Your task to perform on an android device: change the clock style Image 0: 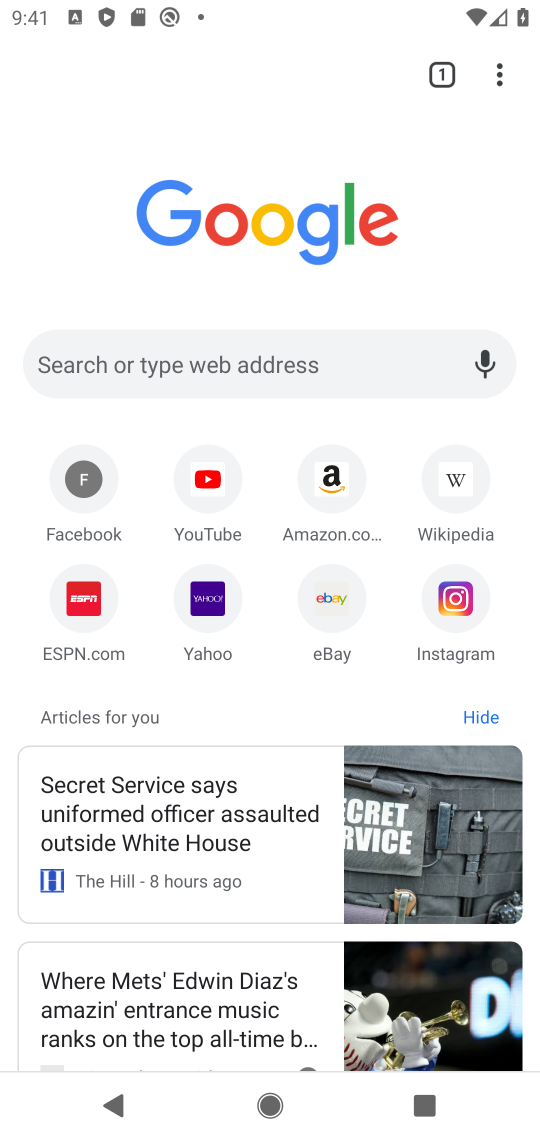
Step 0: press home button
Your task to perform on an android device: change the clock style Image 1: 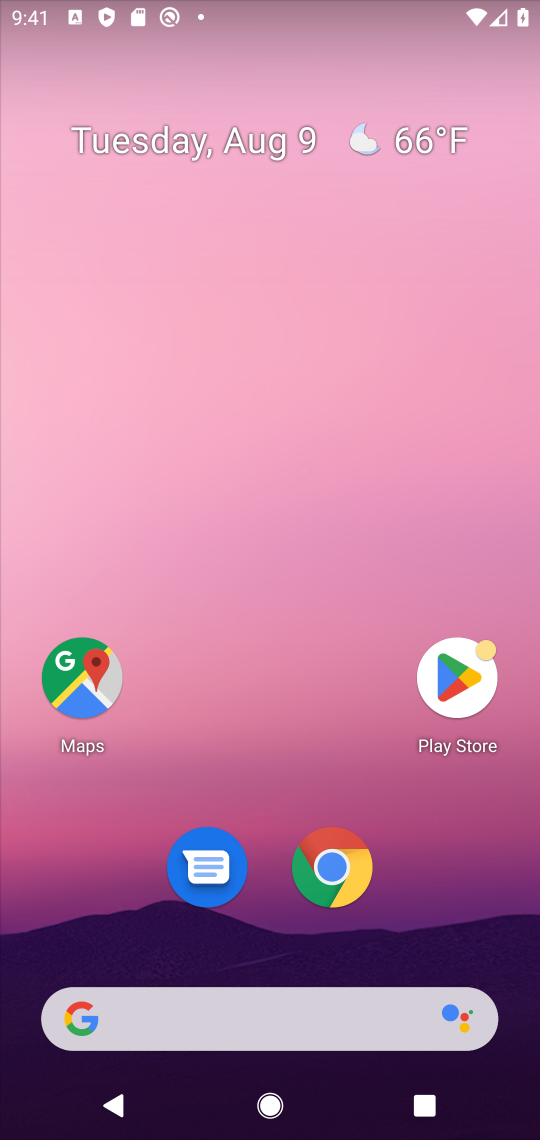
Step 1: drag from (436, 882) to (399, 161)
Your task to perform on an android device: change the clock style Image 2: 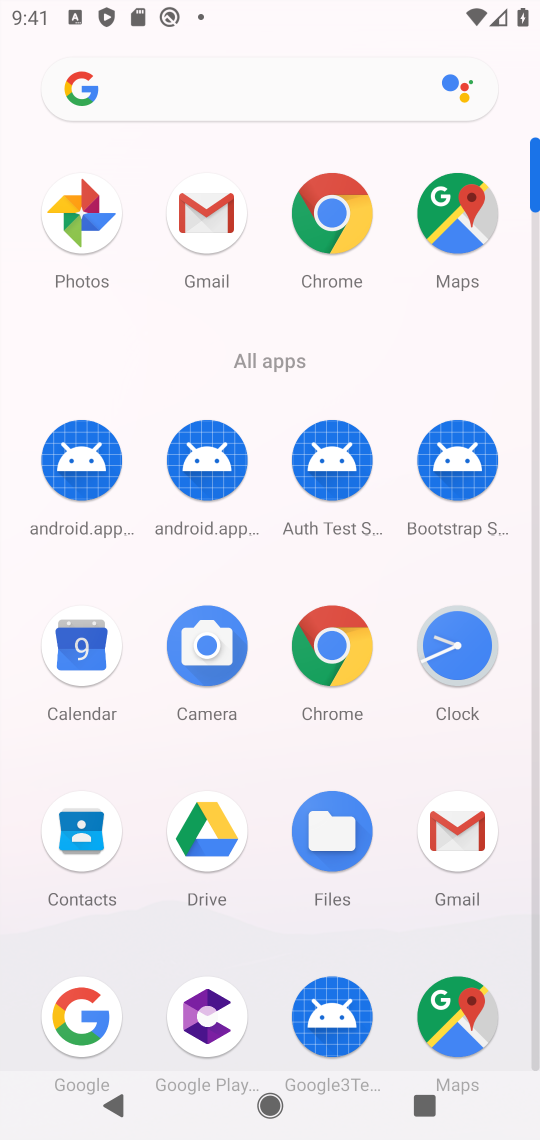
Step 2: click (459, 632)
Your task to perform on an android device: change the clock style Image 3: 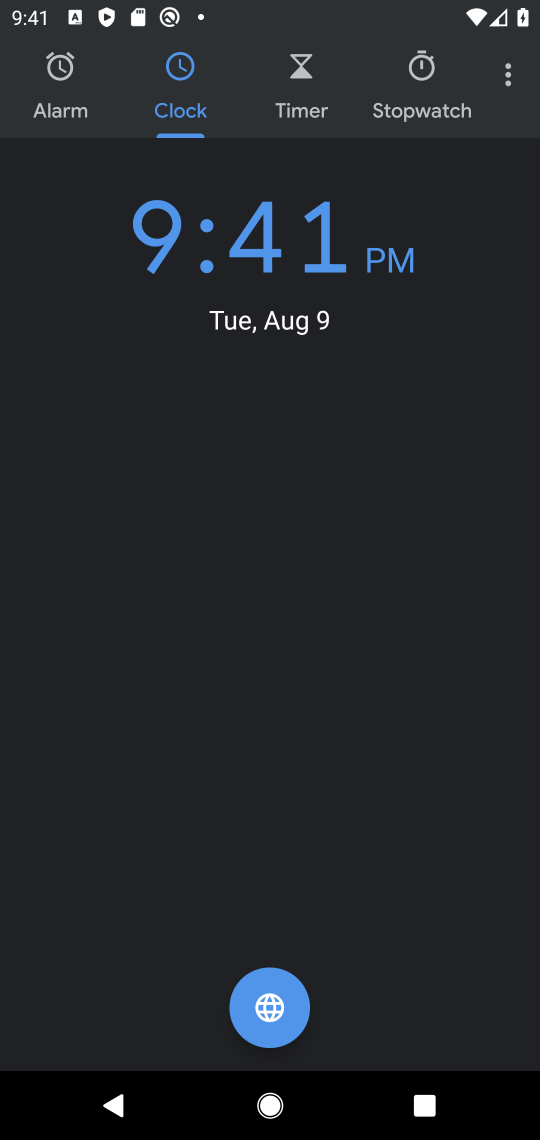
Step 3: click (500, 85)
Your task to perform on an android device: change the clock style Image 4: 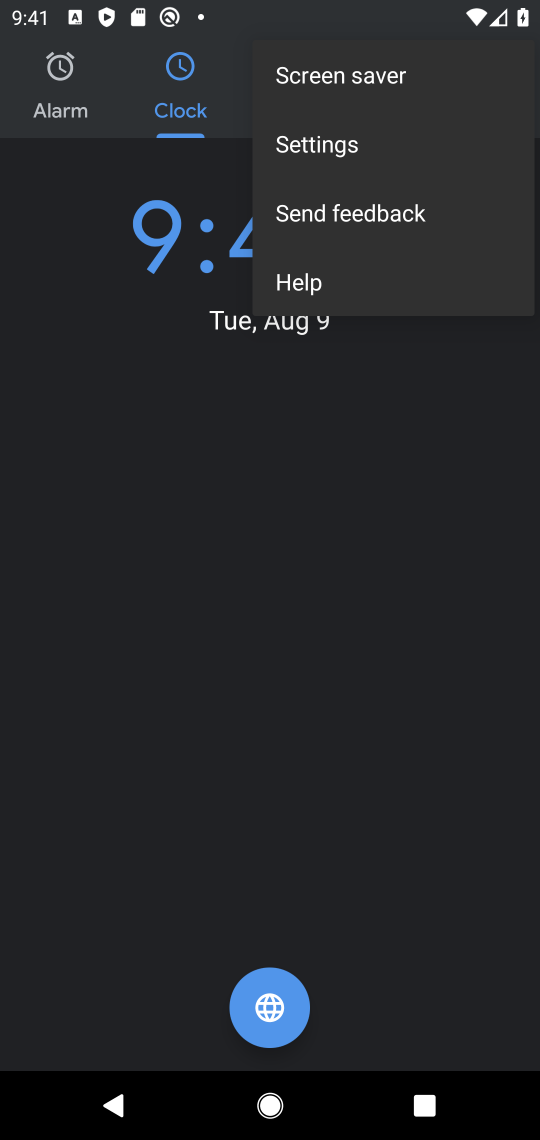
Step 4: click (403, 159)
Your task to perform on an android device: change the clock style Image 5: 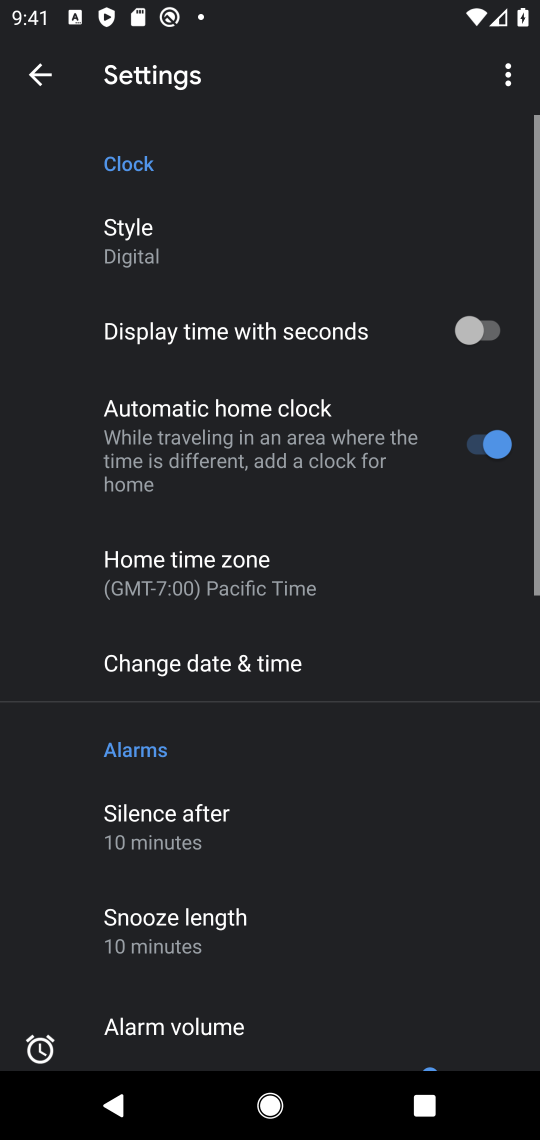
Step 5: click (234, 248)
Your task to perform on an android device: change the clock style Image 6: 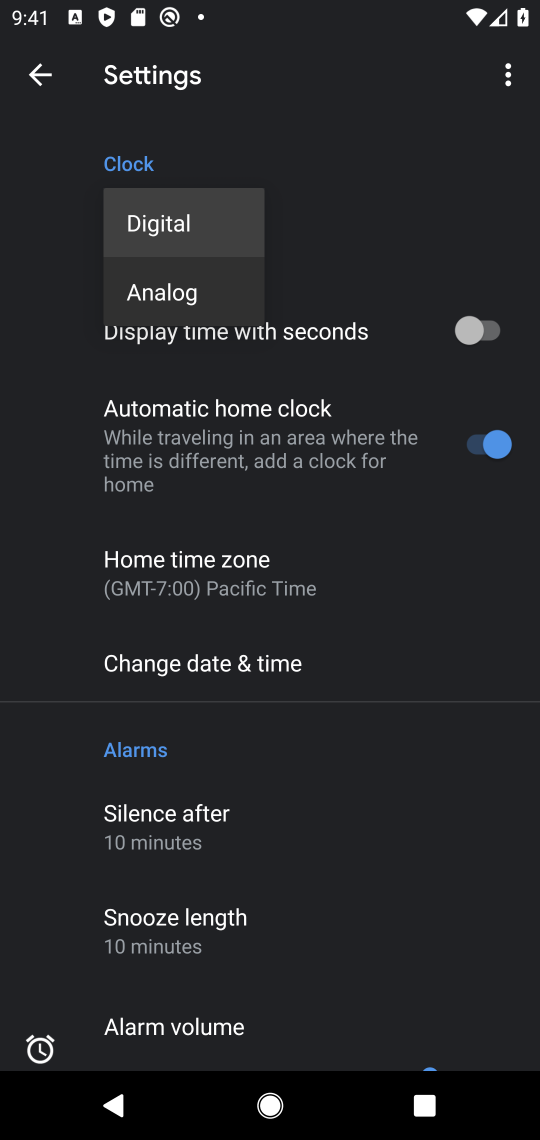
Step 6: click (202, 292)
Your task to perform on an android device: change the clock style Image 7: 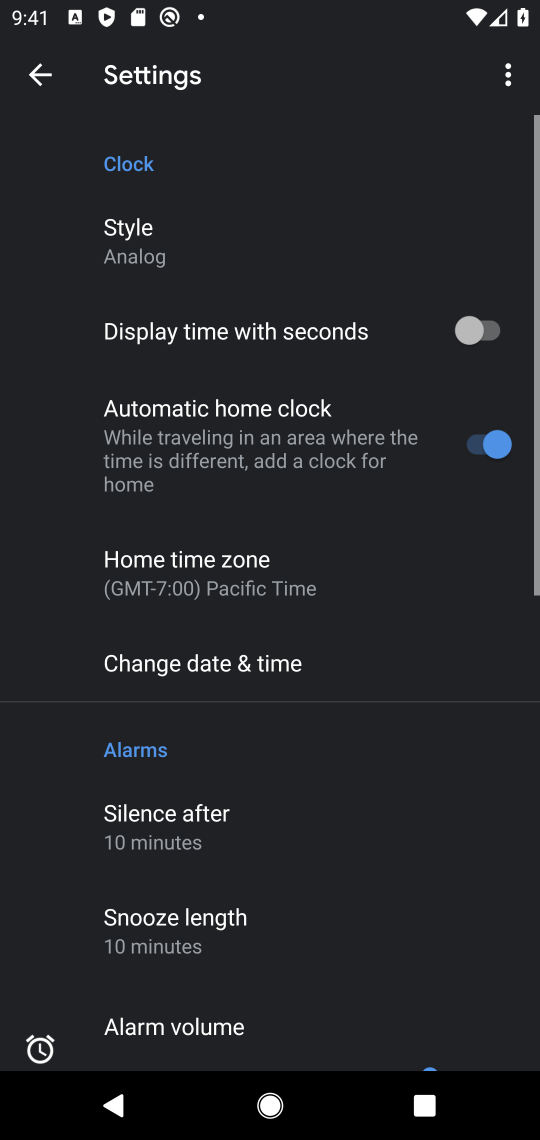
Step 7: task complete